Your task to perform on an android device: all mails in gmail Image 0: 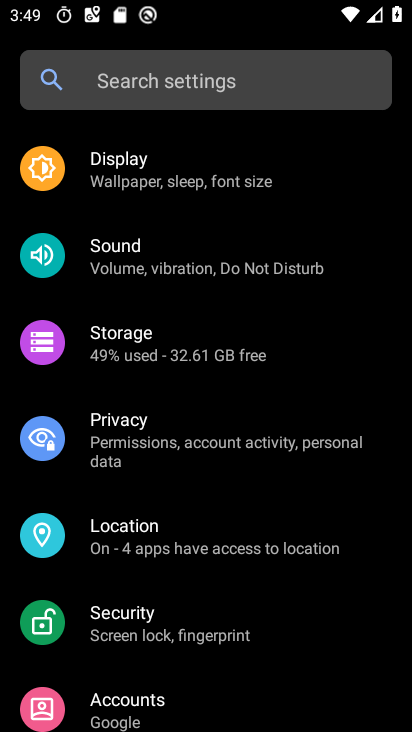
Step 0: press back button
Your task to perform on an android device: all mails in gmail Image 1: 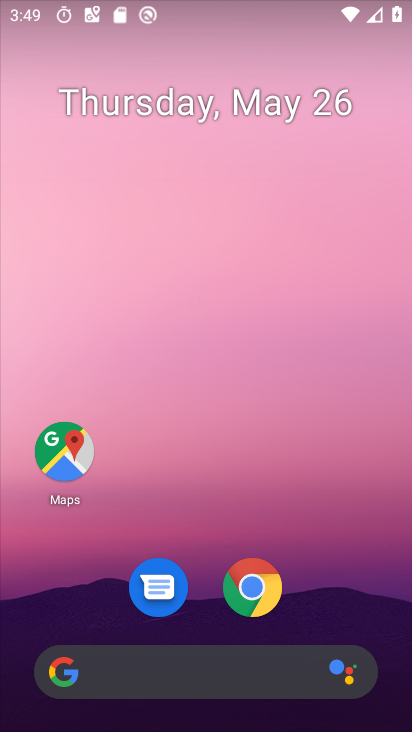
Step 1: drag from (222, 693) to (249, 391)
Your task to perform on an android device: all mails in gmail Image 2: 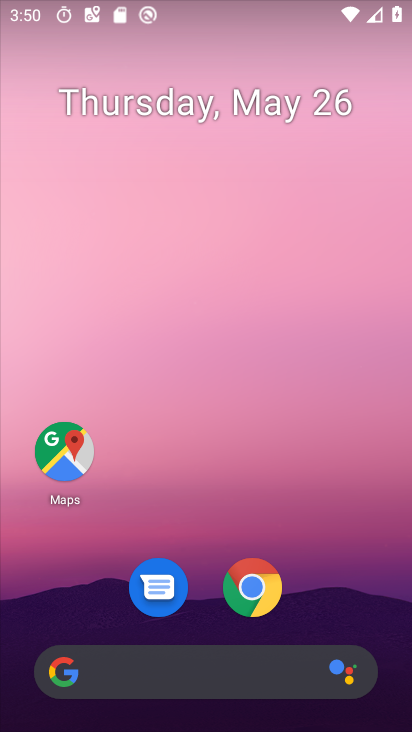
Step 2: drag from (220, 699) to (172, 322)
Your task to perform on an android device: all mails in gmail Image 3: 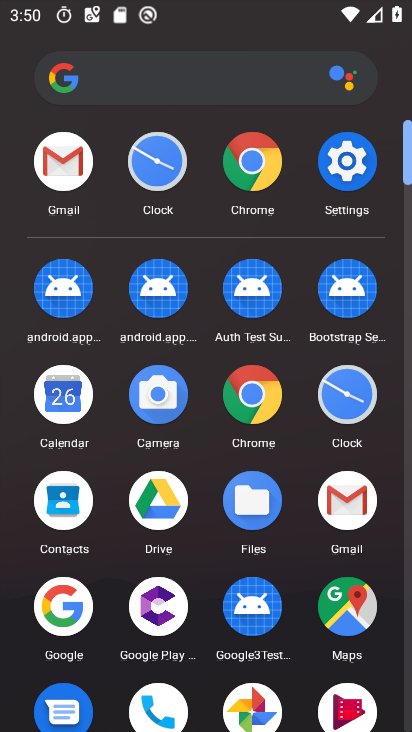
Step 3: click (341, 505)
Your task to perform on an android device: all mails in gmail Image 4: 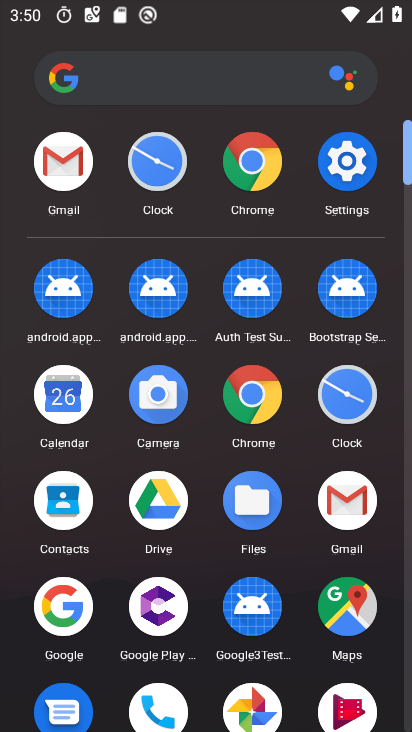
Step 4: click (342, 505)
Your task to perform on an android device: all mails in gmail Image 5: 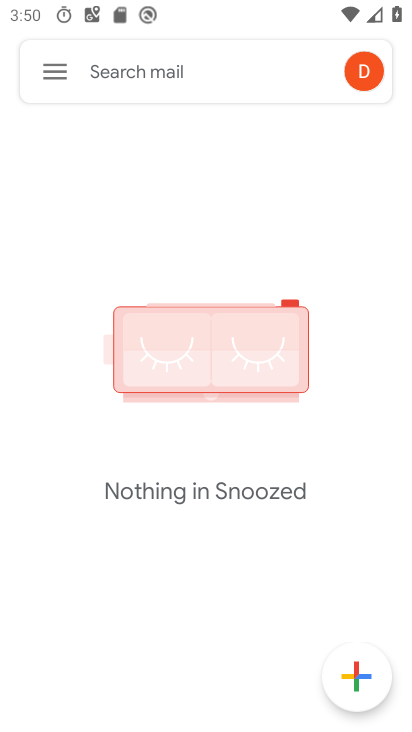
Step 5: click (345, 504)
Your task to perform on an android device: all mails in gmail Image 6: 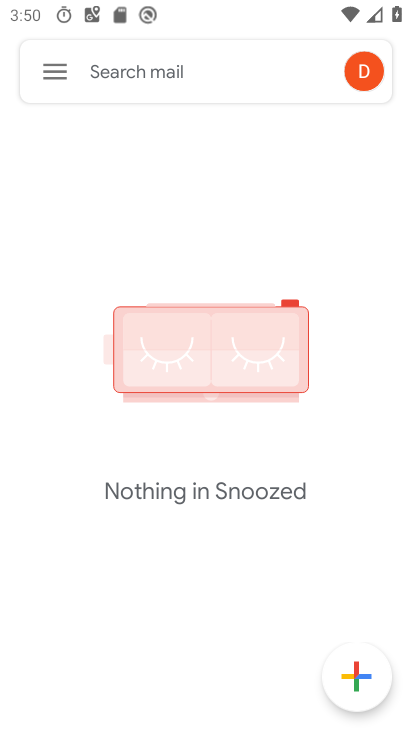
Step 6: click (345, 504)
Your task to perform on an android device: all mails in gmail Image 7: 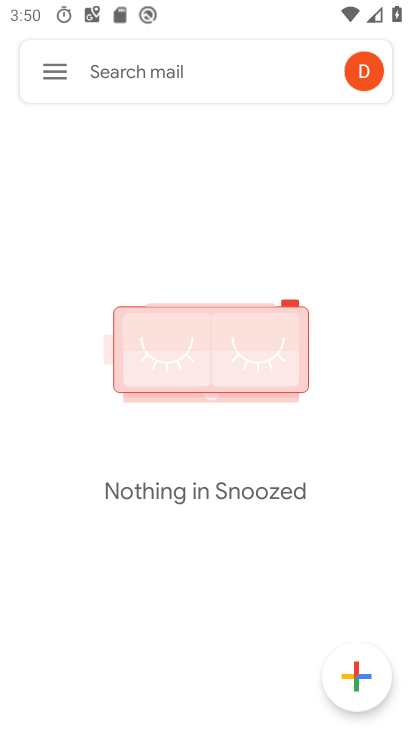
Step 7: task complete